Your task to perform on an android device: check out phone information Image 0: 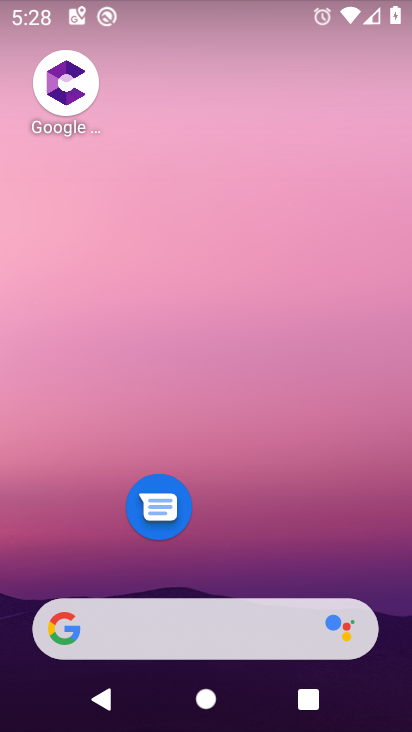
Step 0: press home button
Your task to perform on an android device: check out phone information Image 1: 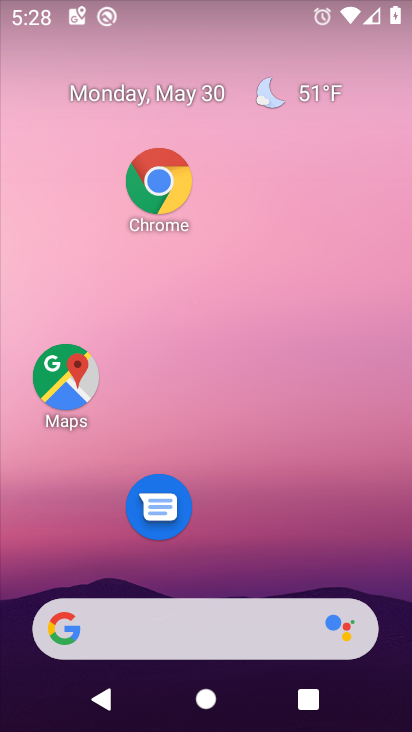
Step 1: drag from (324, 498) to (299, 44)
Your task to perform on an android device: check out phone information Image 2: 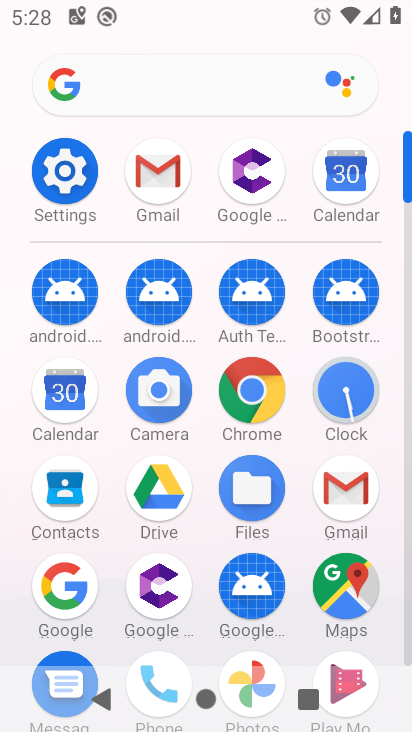
Step 2: click (404, 650)
Your task to perform on an android device: check out phone information Image 3: 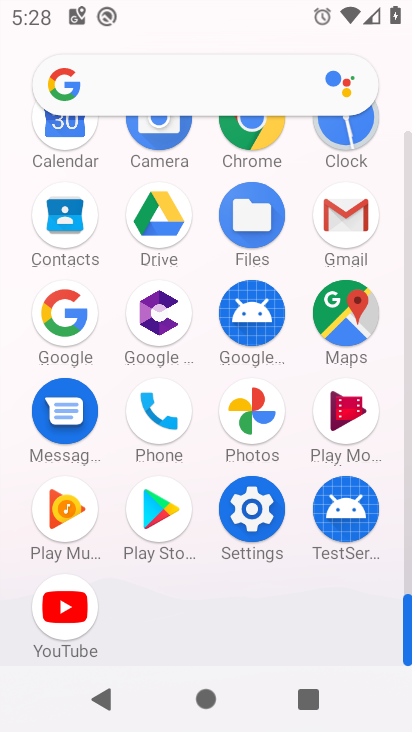
Step 3: click (147, 420)
Your task to perform on an android device: check out phone information Image 4: 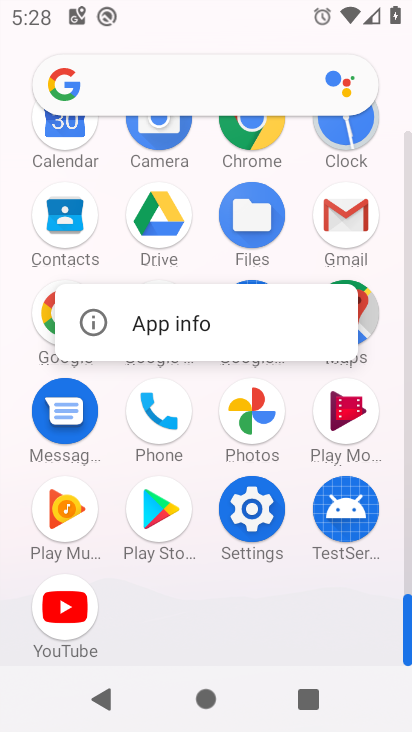
Step 4: click (260, 333)
Your task to perform on an android device: check out phone information Image 5: 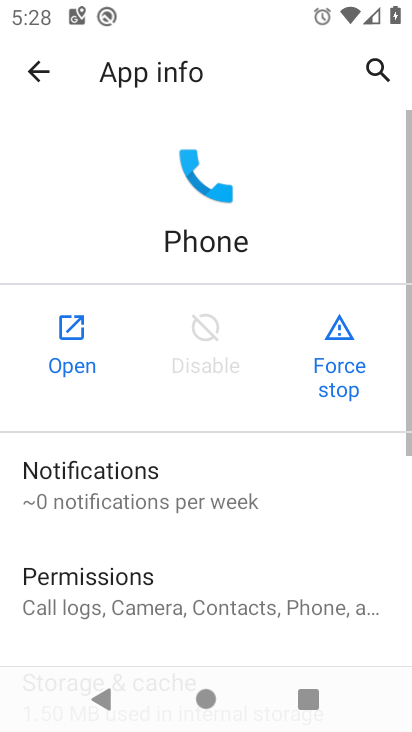
Step 5: task complete